Your task to perform on an android device: turn off sleep mode Image 0: 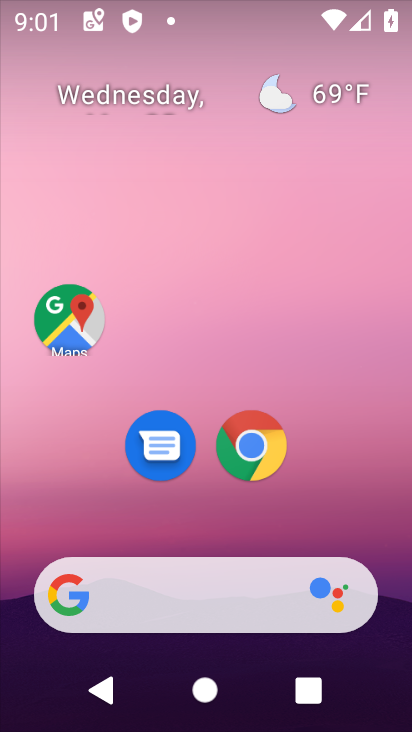
Step 0: drag from (318, 493) to (335, 153)
Your task to perform on an android device: turn off sleep mode Image 1: 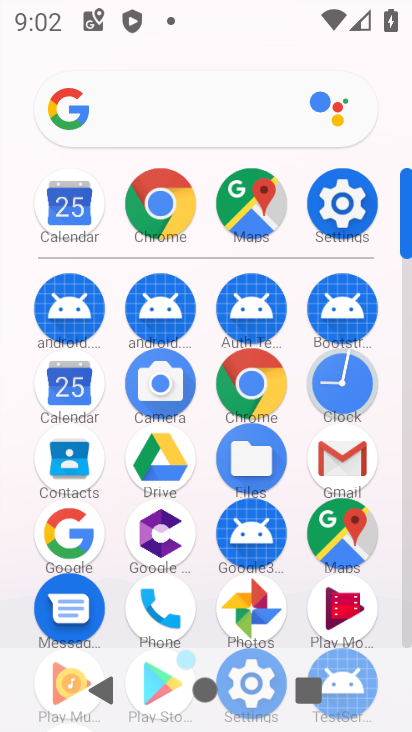
Step 1: click (355, 198)
Your task to perform on an android device: turn off sleep mode Image 2: 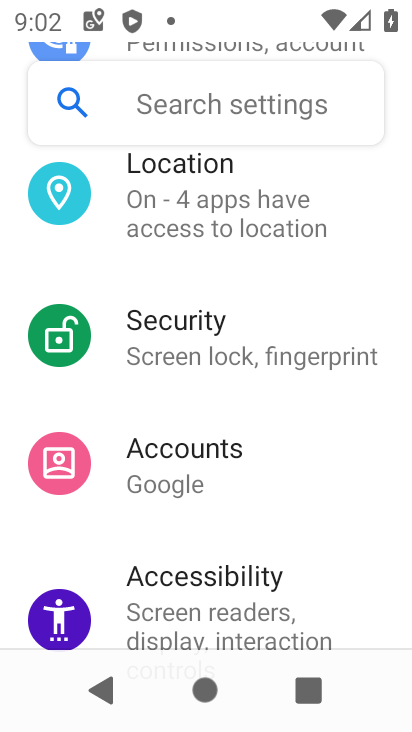
Step 2: drag from (309, 242) to (252, 570)
Your task to perform on an android device: turn off sleep mode Image 3: 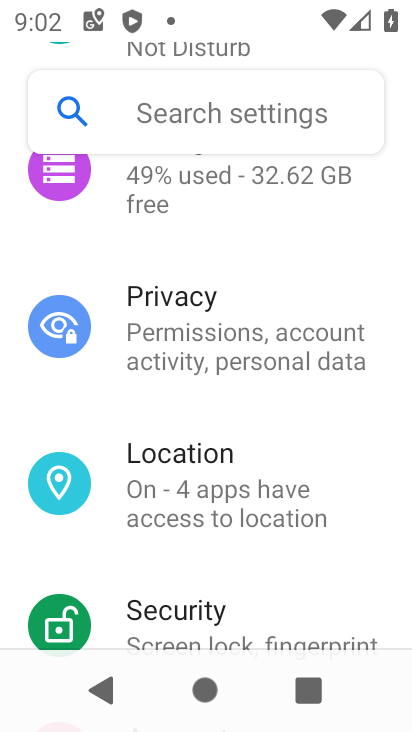
Step 3: drag from (347, 216) to (285, 595)
Your task to perform on an android device: turn off sleep mode Image 4: 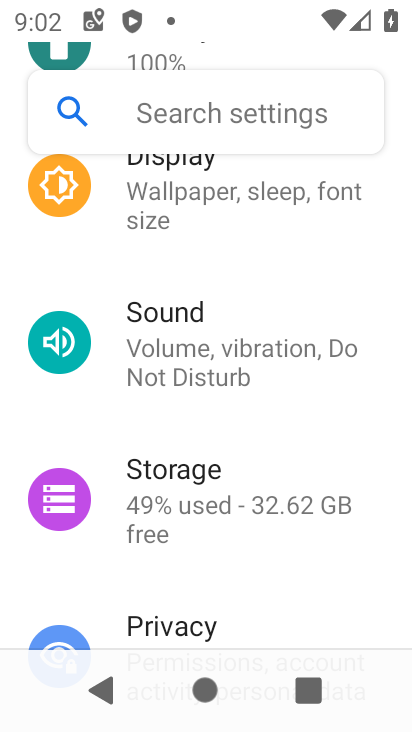
Step 4: drag from (293, 265) to (278, 482)
Your task to perform on an android device: turn off sleep mode Image 5: 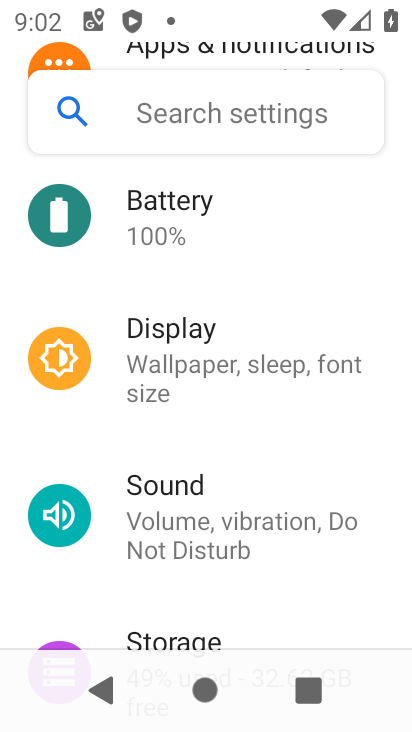
Step 5: click (172, 347)
Your task to perform on an android device: turn off sleep mode Image 6: 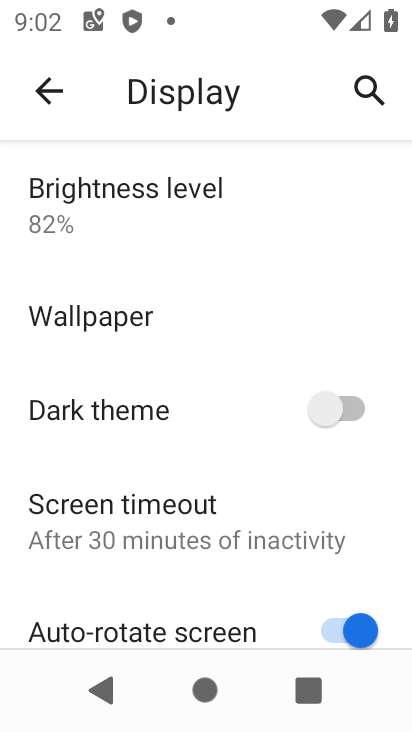
Step 6: task complete